Your task to perform on an android device: Do I have any events this weekend? Image 0: 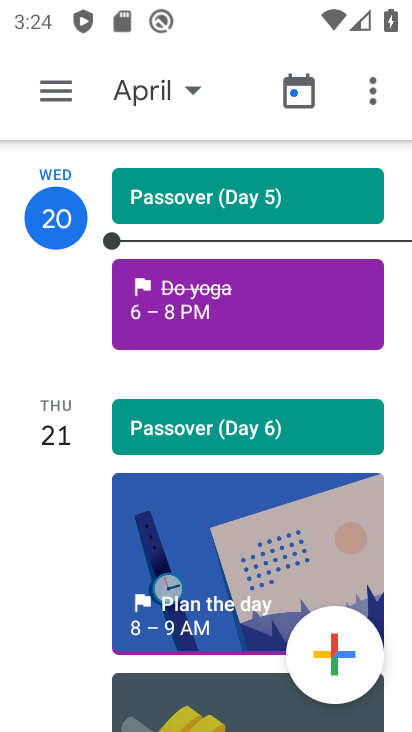
Step 0: drag from (241, 564) to (352, 198)
Your task to perform on an android device: Do I have any events this weekend? Image 1: 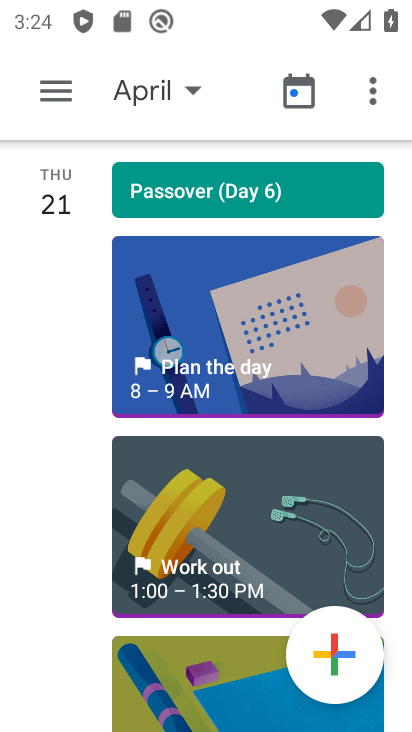
Step 1: click (248, 572)
Your task to perform on an android device: Do I have any events this weekend? Image 2: 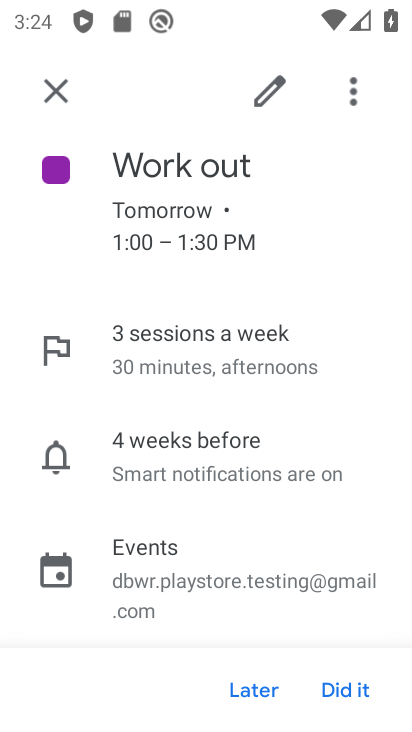
Step 2: task complete